Your task to perform on an android device: open wifi settings Image 0: 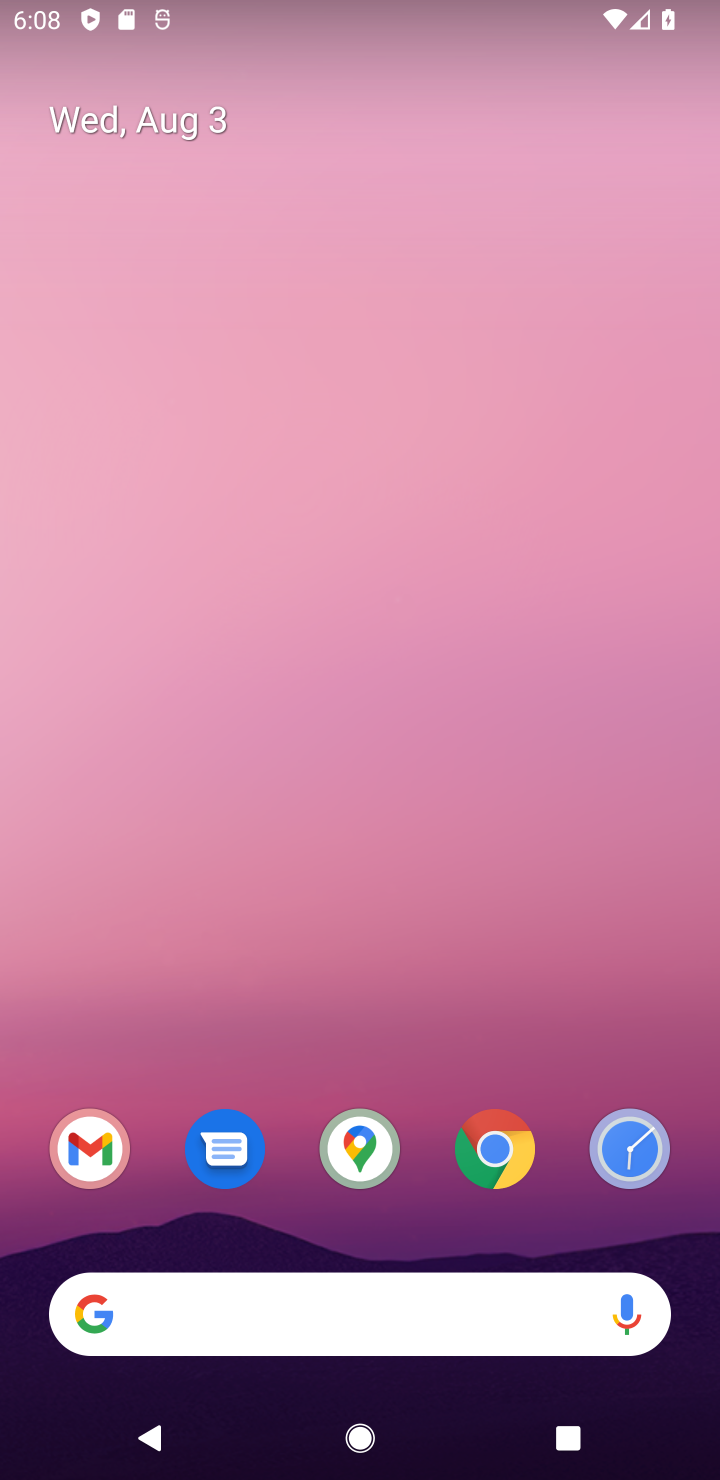
Step 0: drag from (264, 1312) to (475, 72)
Your task to perform on an android device: open wifi settings Image 1: 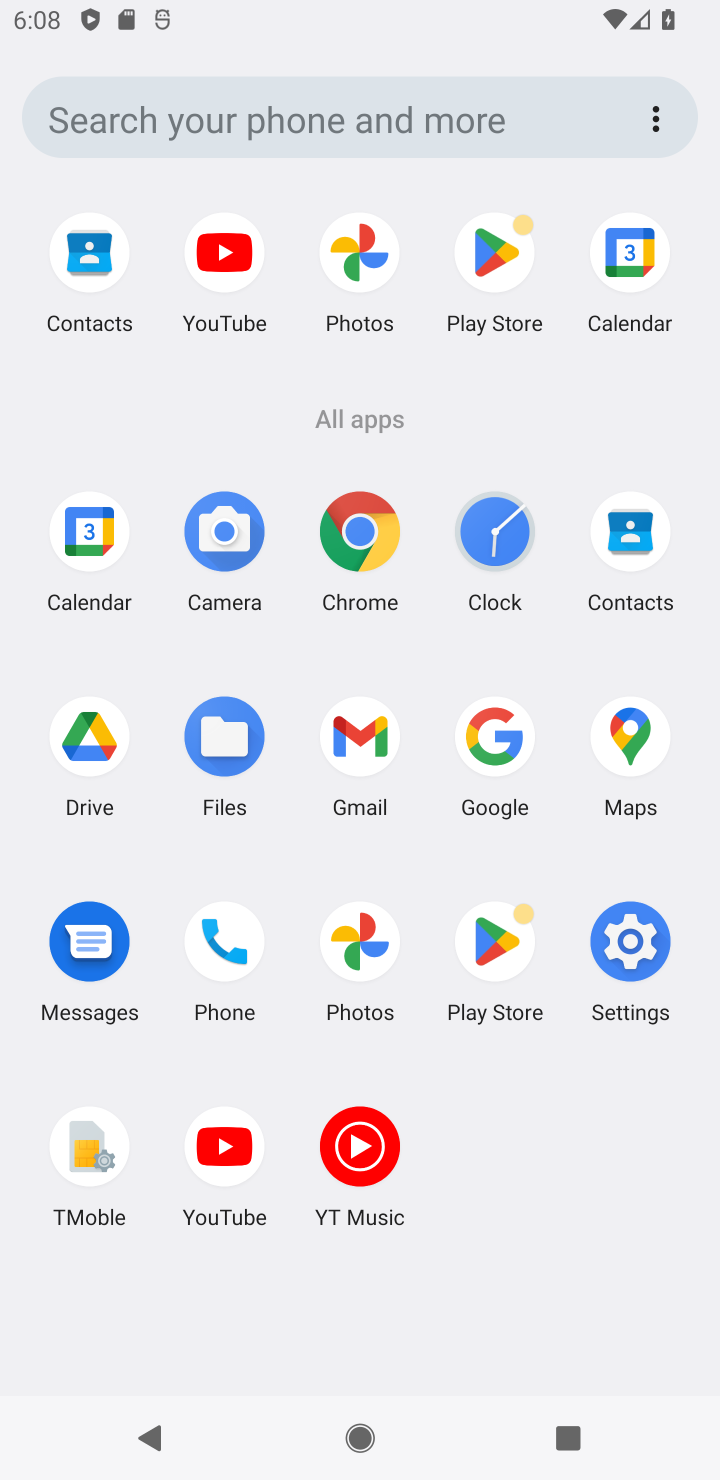
Step 1: click (619, 958)
Your task to perform on an android device: open wifi settings Image 2: 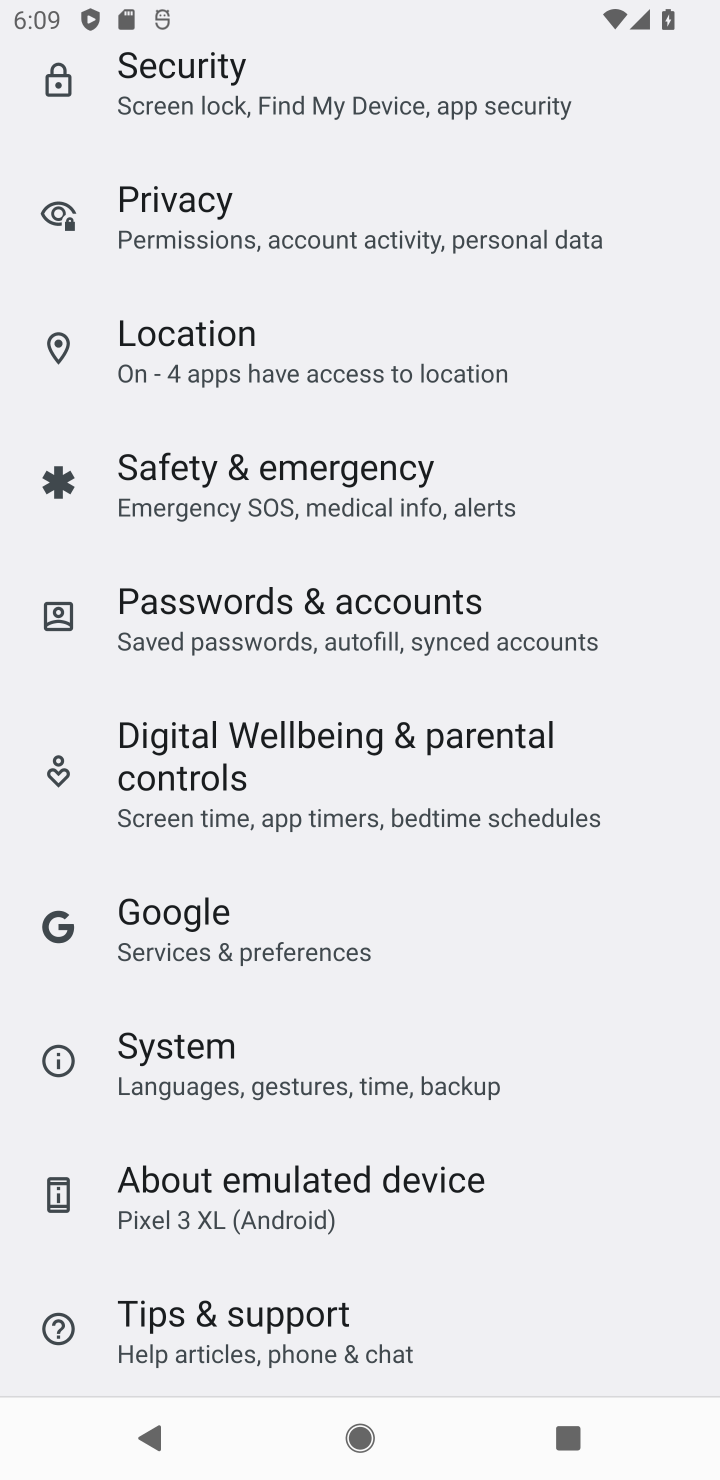
Step 2: drag from (289, 178) to (246, 1162)
Your task to perform on an android device: open wifi settings Image 3: 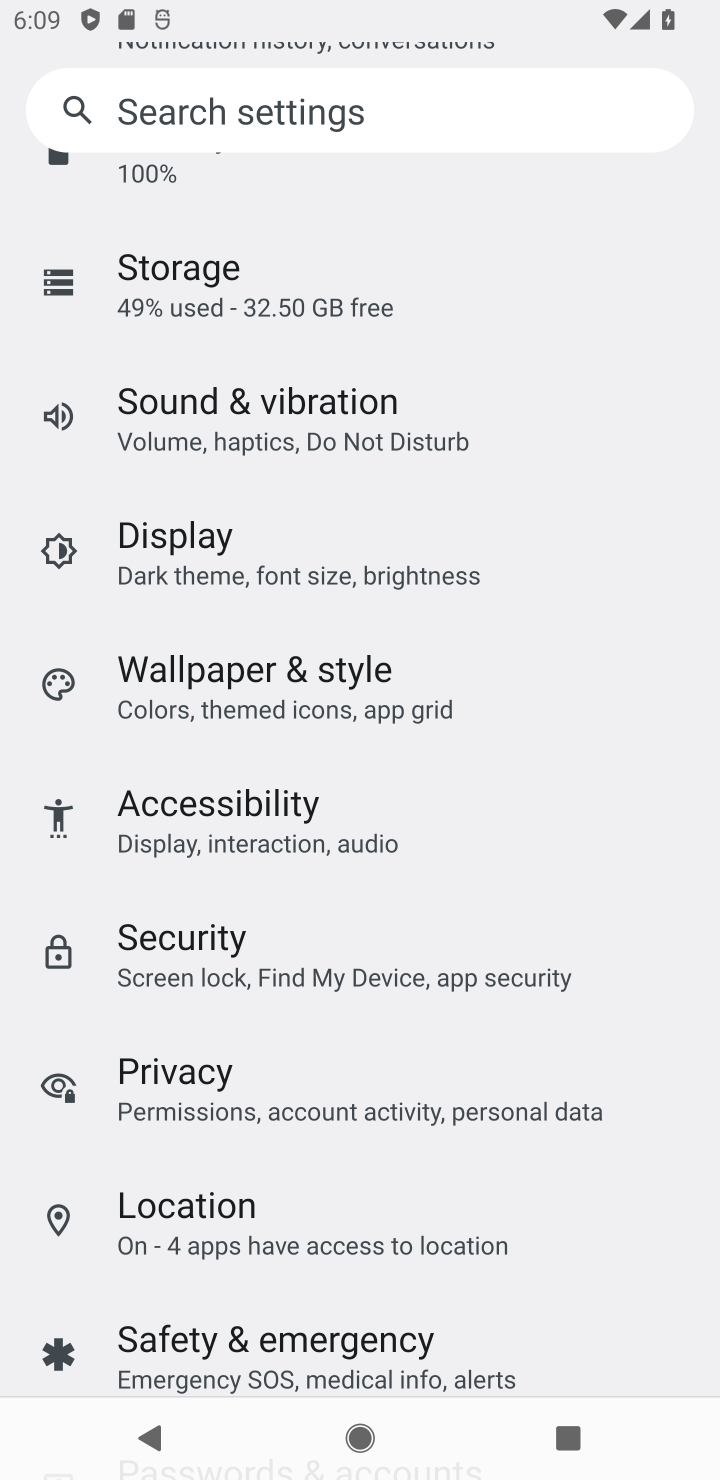
Step 3: drag from (235, 245) to (240, 1242)
Your task to perform on an android device: open wifi settings Image 4: 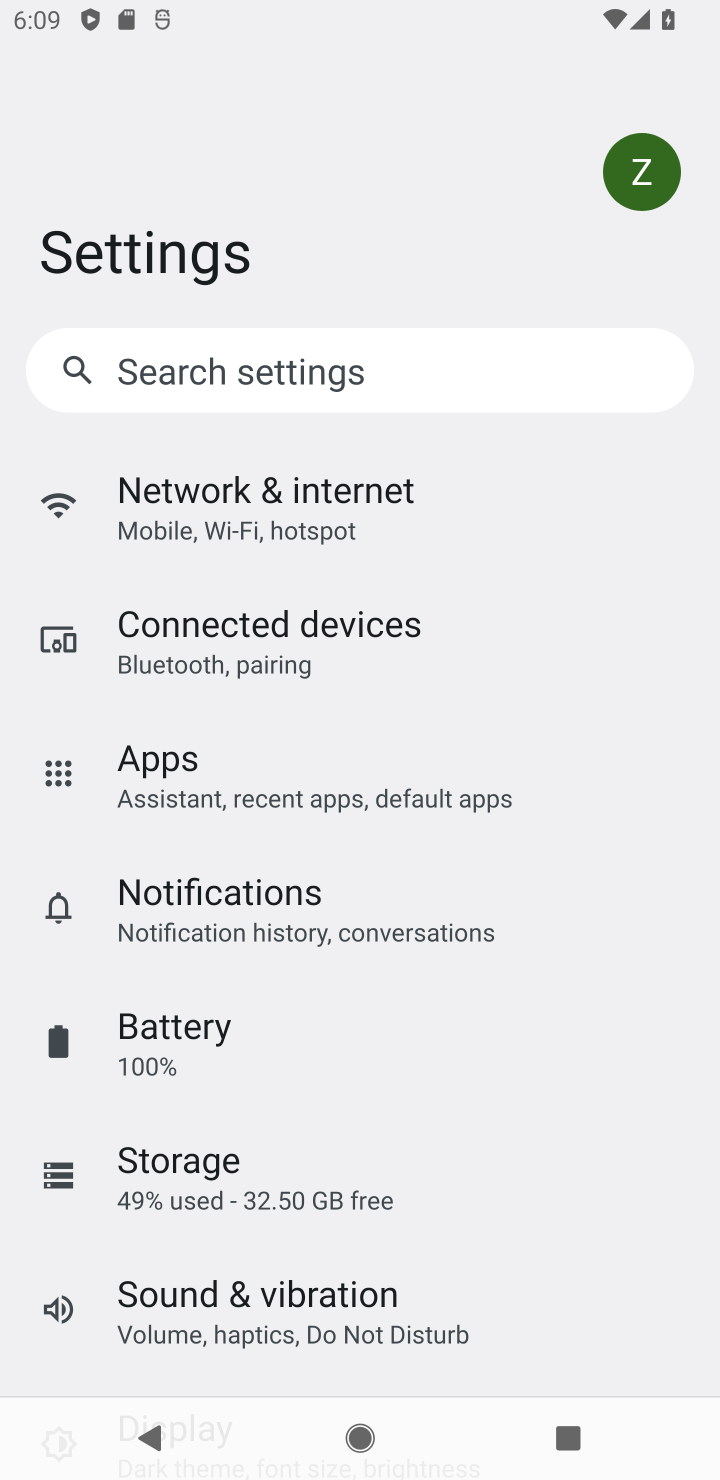
Step 4: click (187, 532)
Your task to perform on an android device: open wifi settings Image 5: 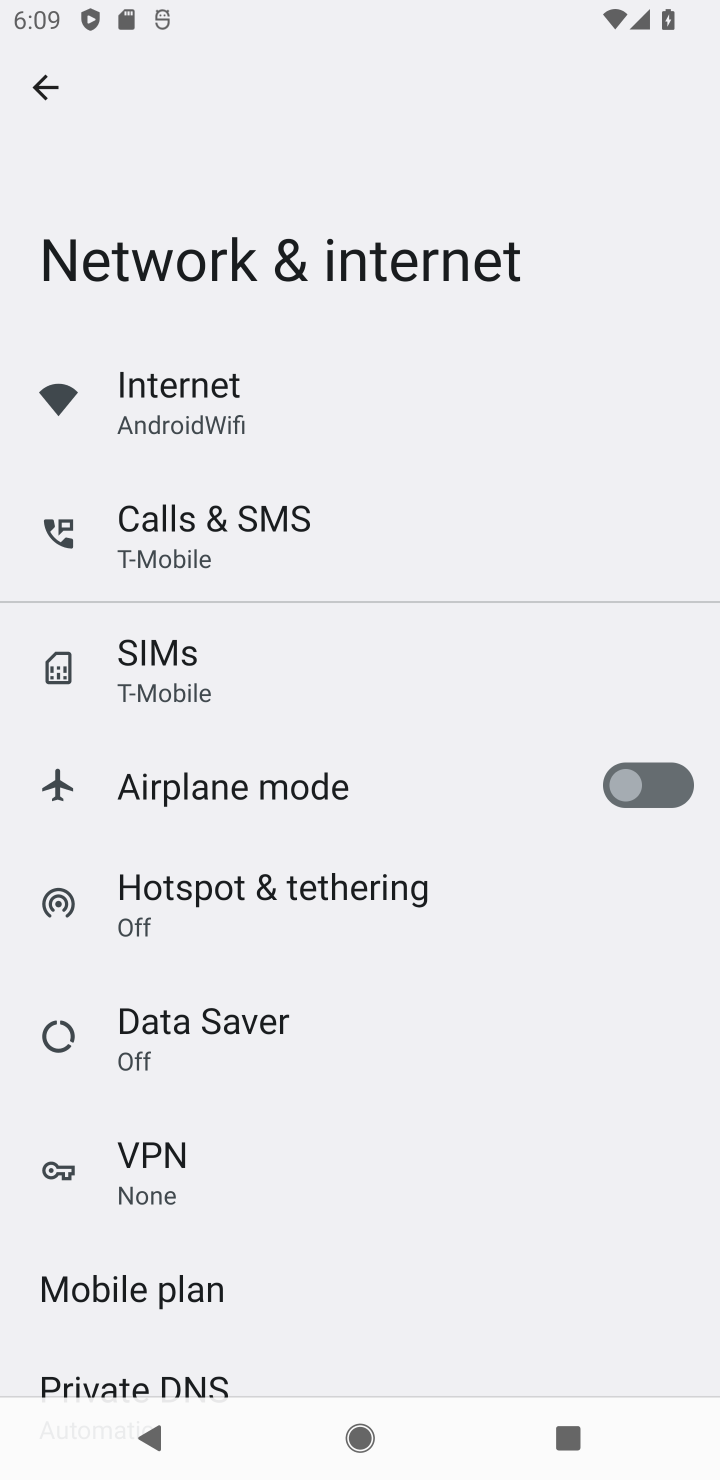
Step 5: click (151, 409)
Your task to perform on an android device: open wifi settings Image 6: 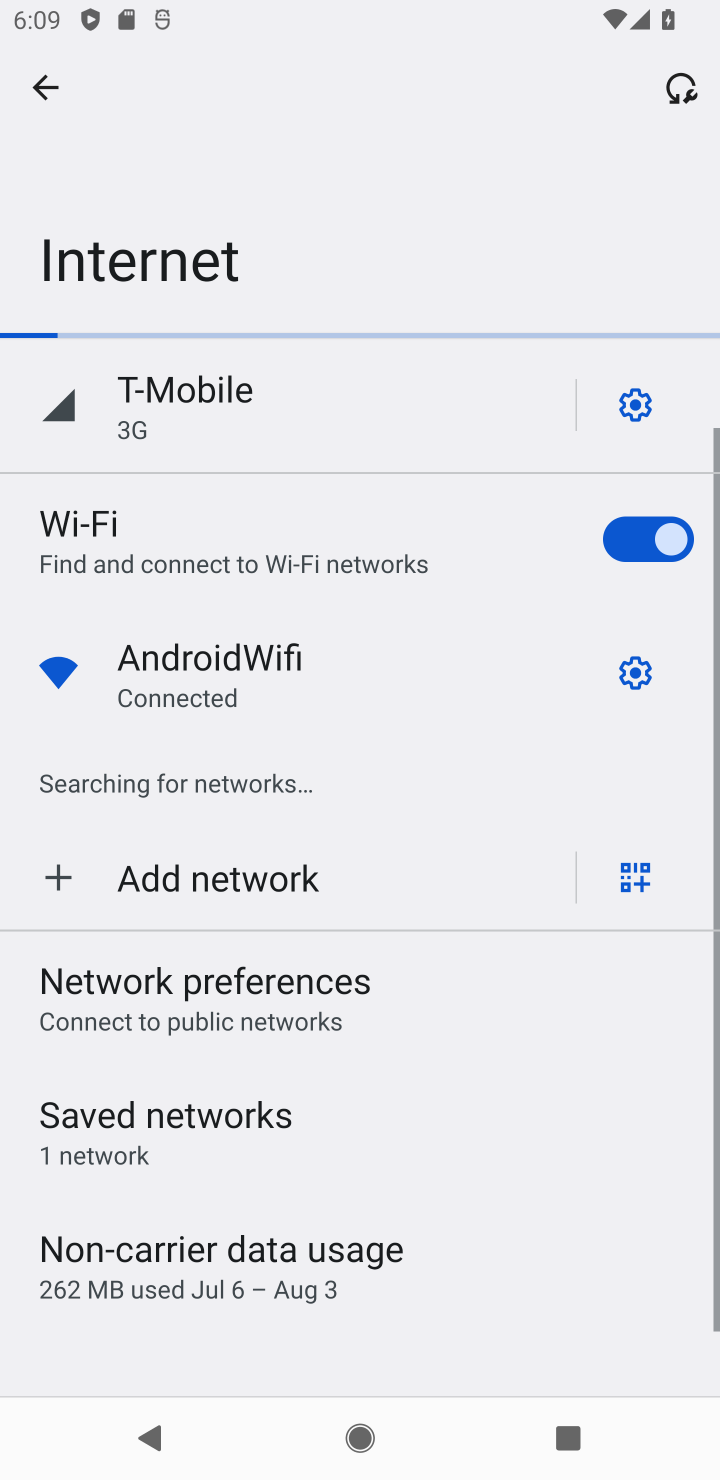
Step 6: task complete